Your task to perform on an android device: Open settings on Google Maps Image 0: 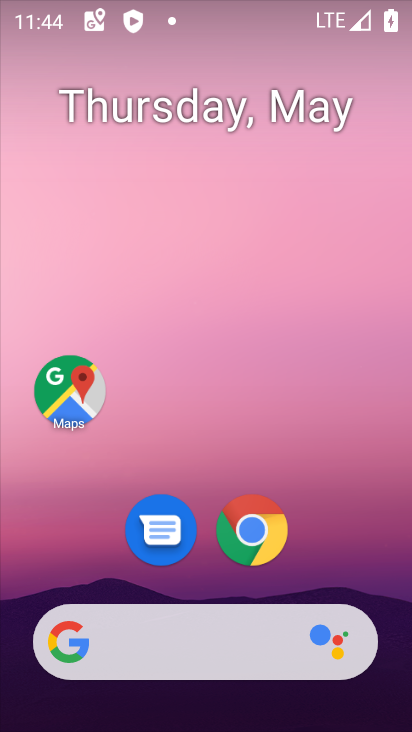
Step 0: drag from (258, 714) to (16, 726)
Your task to perform on an android device: Open settings on Google Maps Image 1: 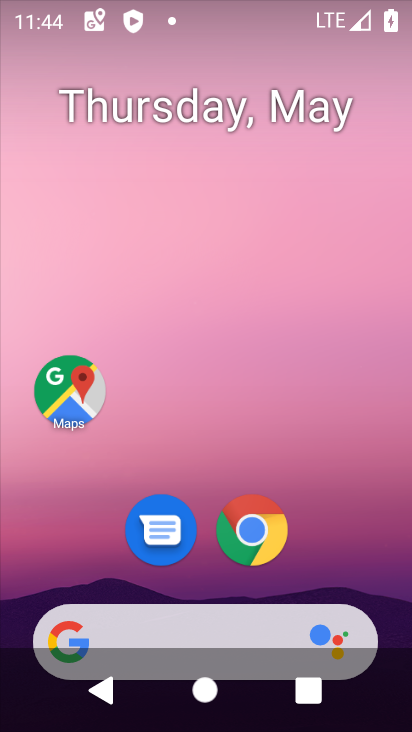
Step 1: click (63, 412)
Your task to perform on an android device: Open settings on Google Maps Image 2: 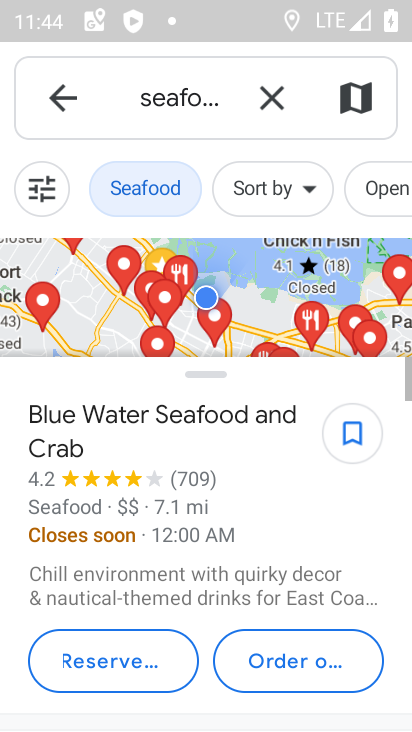
Step 2: click (70, 104)
Your task to perform on an android device: Open settings on Google Maps Image 3: 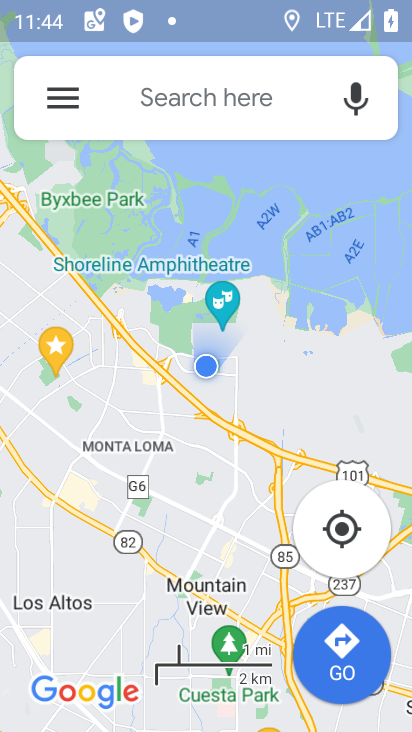
Step 3: click (66, 94)
Your task to perform on an android device: Open settings on Google Maps Image 4: 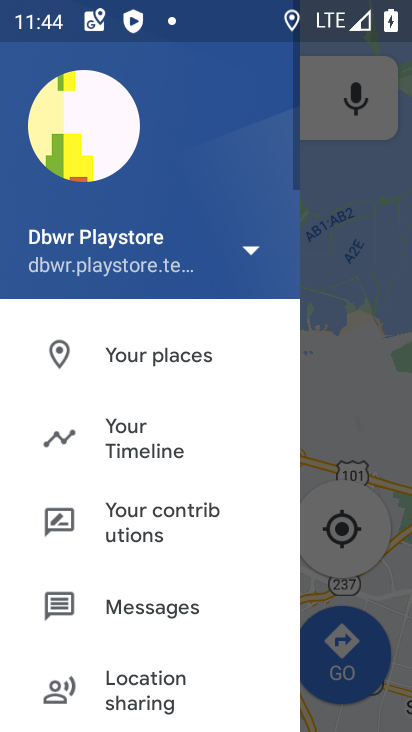
Step 4: drag from (77, 703) to (176, 57)
Your task to perform on an android device: Open settings on Google Maps Image 5: 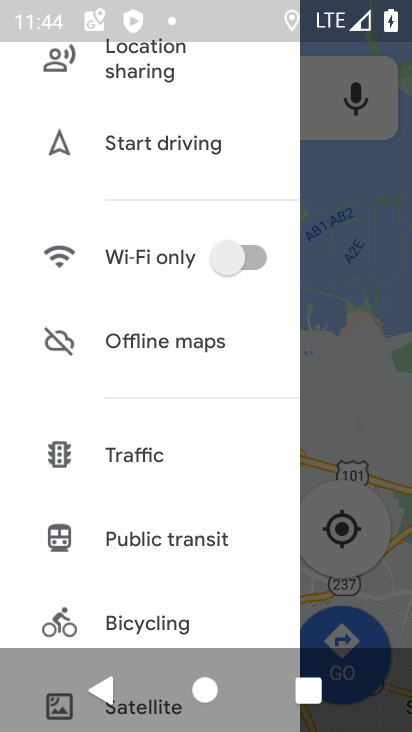
Step 5: drag from (178, 514) to (208, 21)
Your task to perform on an android device: Open settings on Google Maps Image 6: 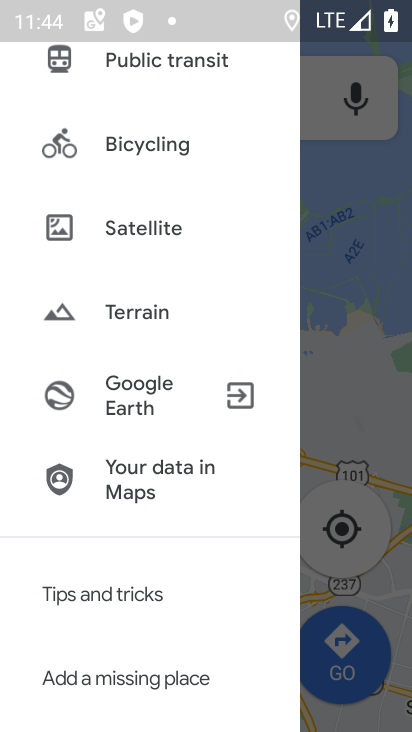
Step 6: drag from (112, 636) to (206, 2)
Your task to perform on an android device: Open settings on Google Maps Image 7: 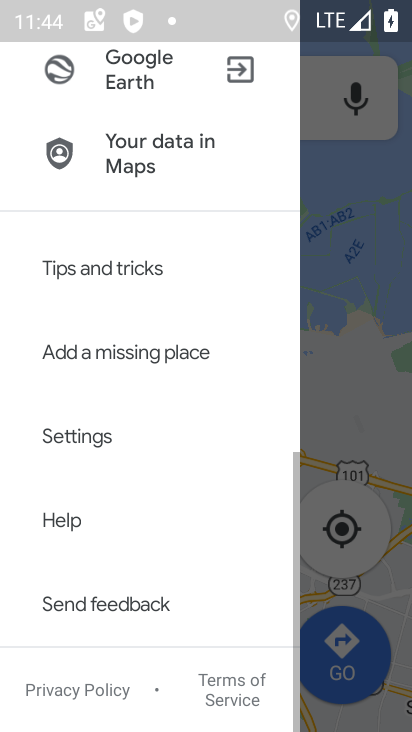
Step 7: click (93, 443)
Your task to perform on an android device: Open settings on Google Maps Image 8: 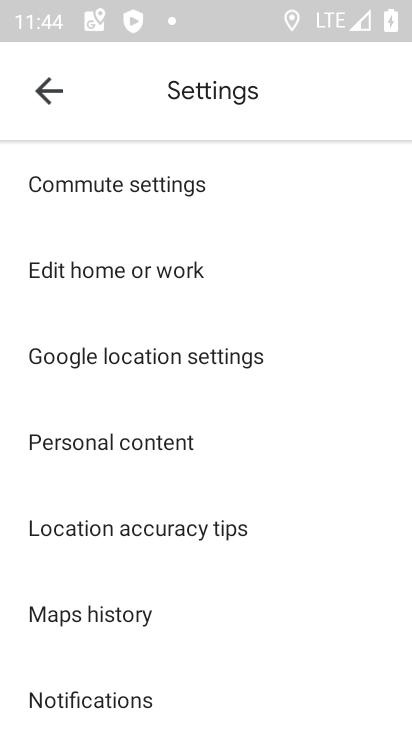
Step 8: task complete